Your task to perform on an android device: Open settings on Google Maps Image 0: 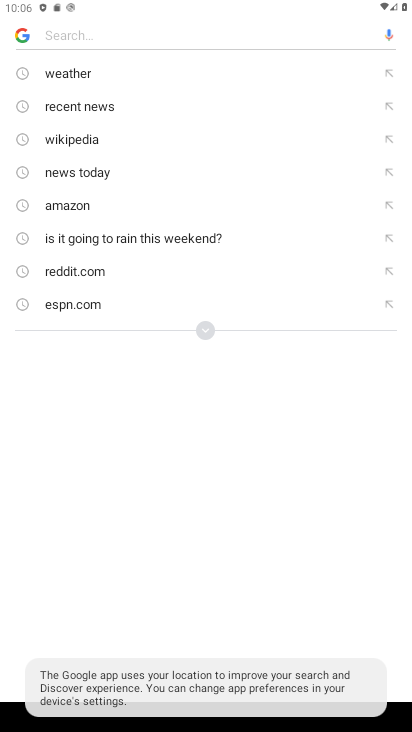
Step 0: press back button
Your task to perform on an android device: Open settings on Google Maps Image 1: 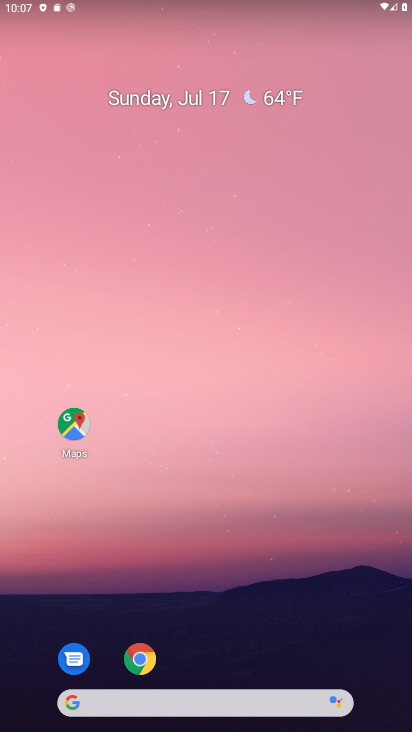
Step 1: drag from (166, 661) to (82, 421)
Your task to perform on an android device: Open settings on Google Maps Image 2: 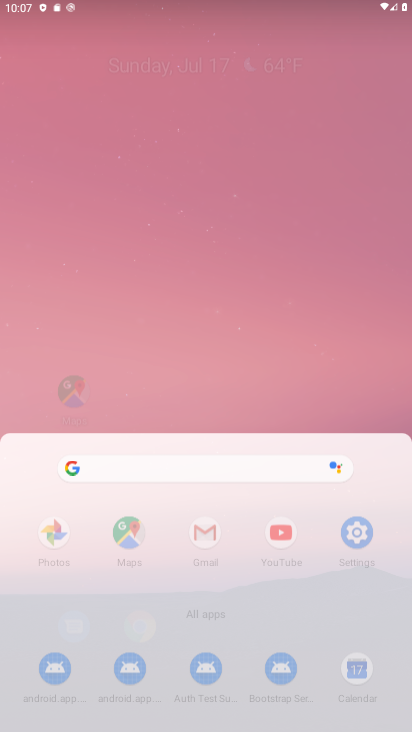
Step 2: click (82, 421)
Your task to perform on an android device: Open settings on Google Maps Image 3: 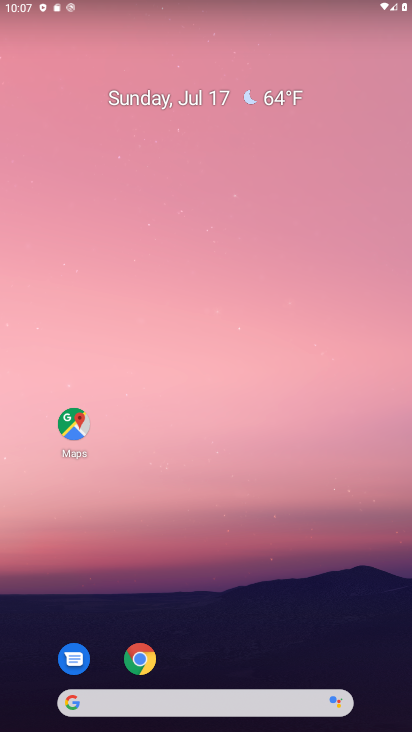
Step 3: click (79, 439)
Your task to perform on an android device: Open settings on Google Maps Image 4: 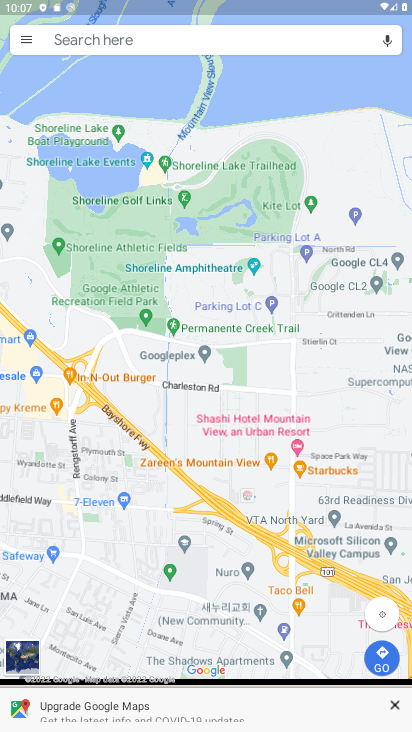
Step 4: click (27, 46)
Your task to perform on an android device: Open settings on Google Maps Image 5: 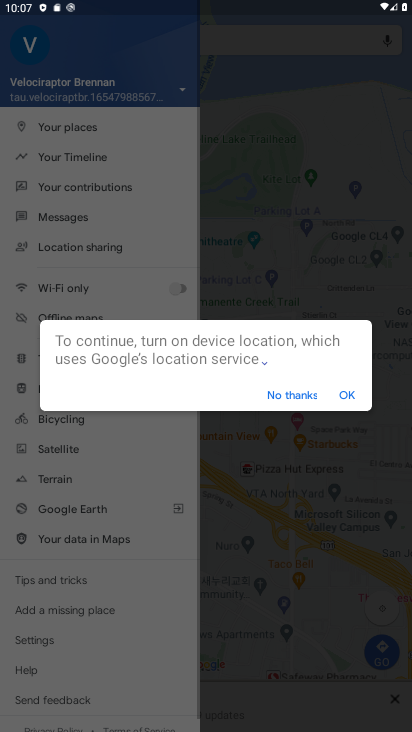
Step 5: click (347, 396)
Your task to perform on an android device: Open settings on Google Maps Image 6: 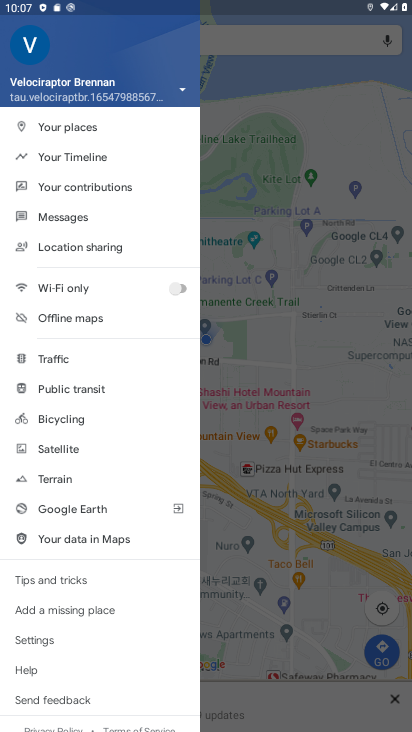
Step 6: click (66, 645)
Your task to perform on an android device: Open settings on Google Maps Image 7: 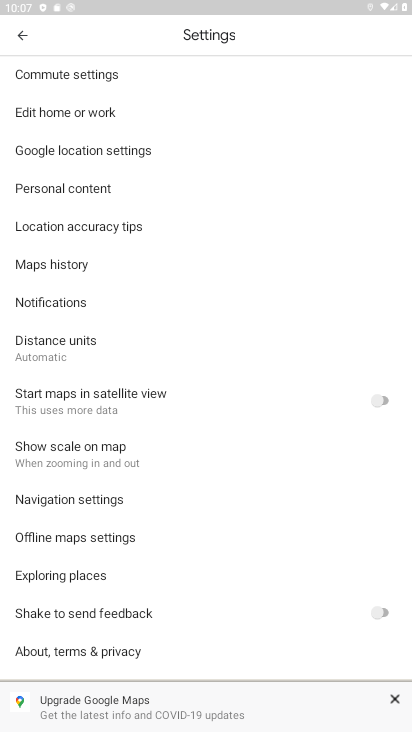
Step 7: task complete